Your task to perform on an android device: Clear the cart on walmart.com. Image 0: 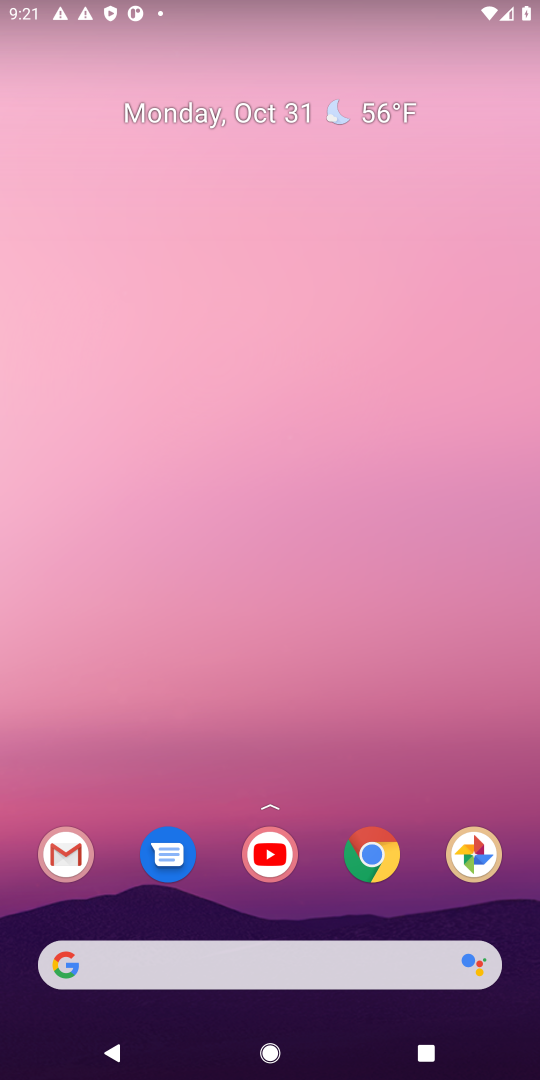
Step 0: click (275, 972)
Your task to perform on an android device: Clear the cart on walmart.com. Image 1: 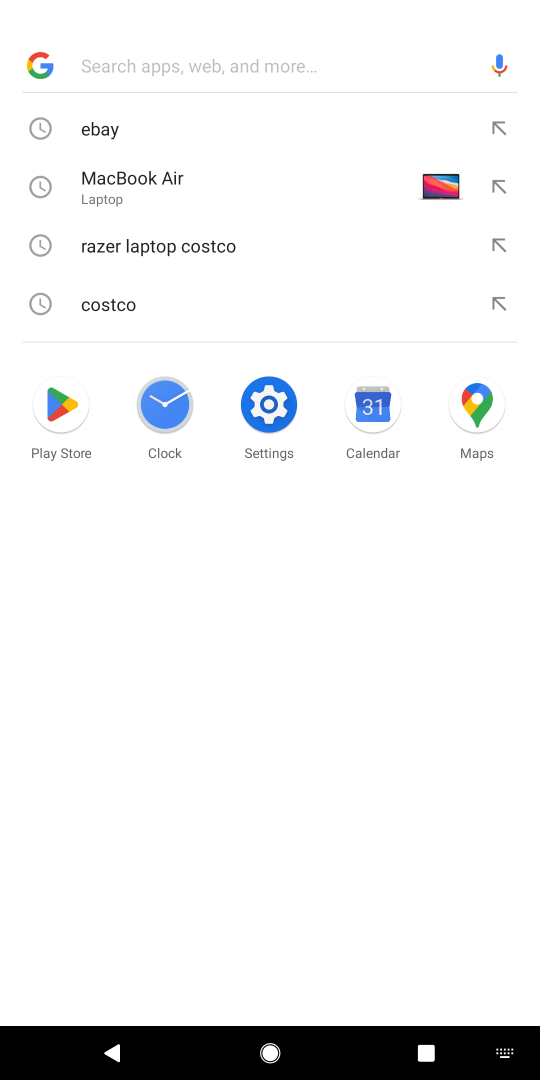
Step 1: type "walmart"
Your task to perform on an android device: Clear the cart on walmart.com. Image 2: 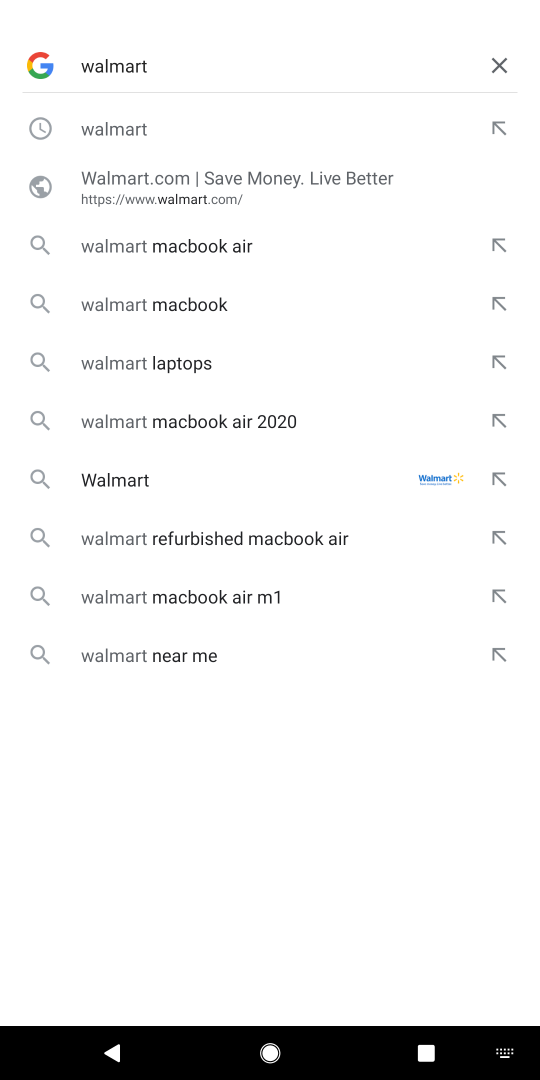
Step 2: click (282, 144)
Your task to perform on an android device: Clear the cart on walmart.com. Image 3: 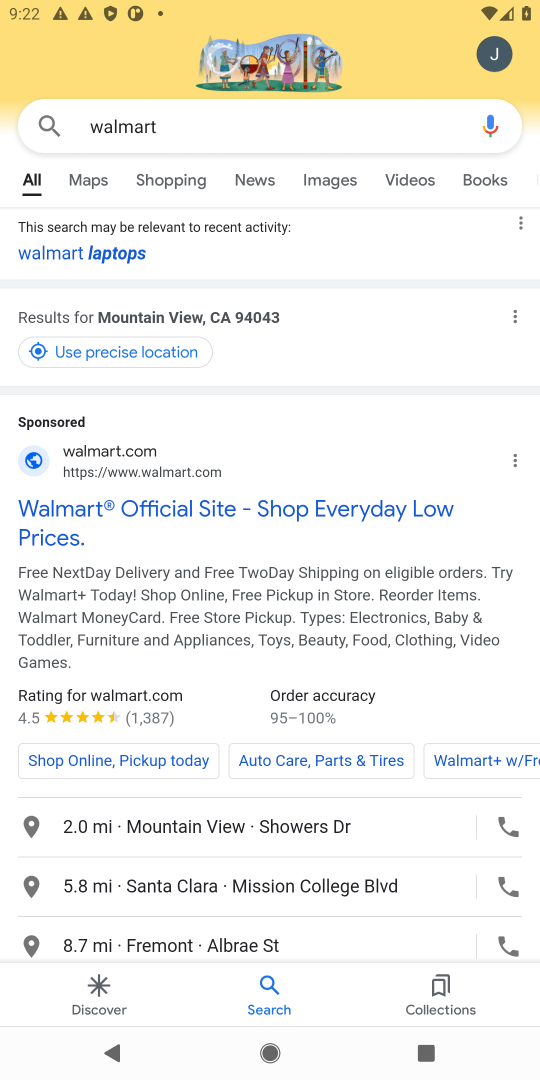
Step 3: click (115, 493)
Your task to perform on an android device: Clear the cart on walmart.com. Image 4: 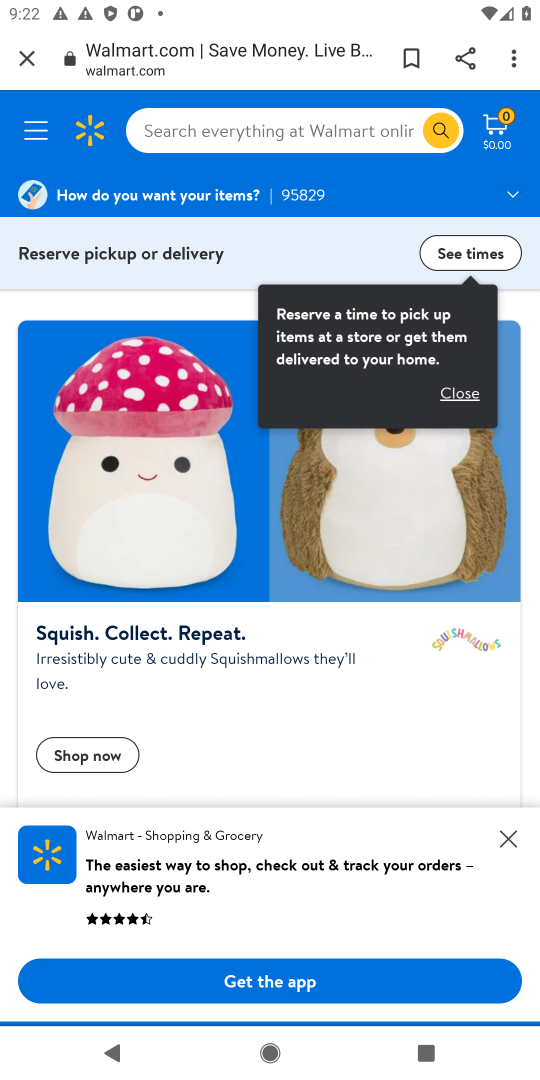
Step 4: click (499, 835)
Your task to perform on an android device: Clear the cart on walmart.com. Image 5: 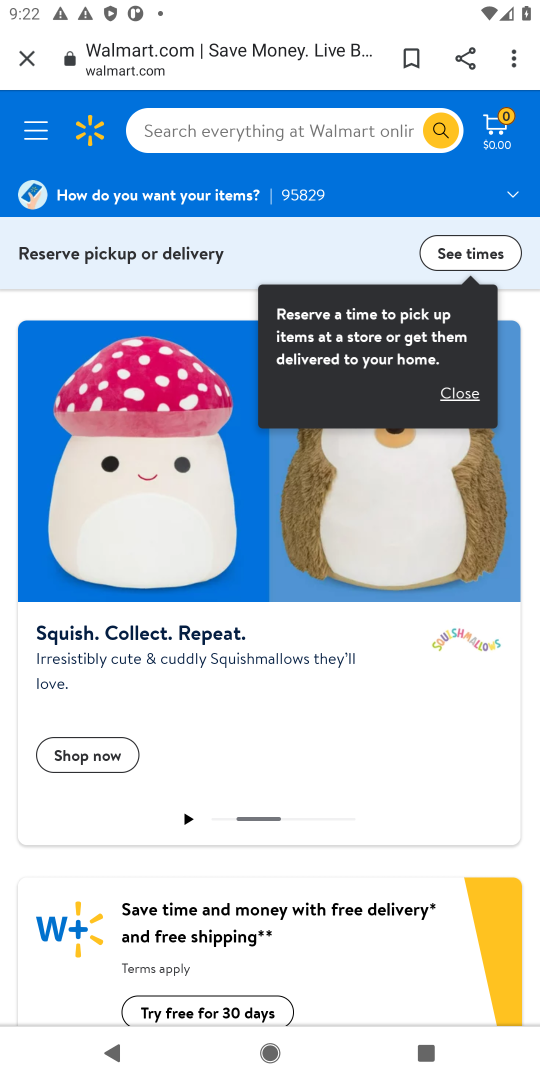
Step 5: drag from (380, 912) to (376, 371)
Your task to perform on an android device: Clear the cart on walmart.com. Image 6: 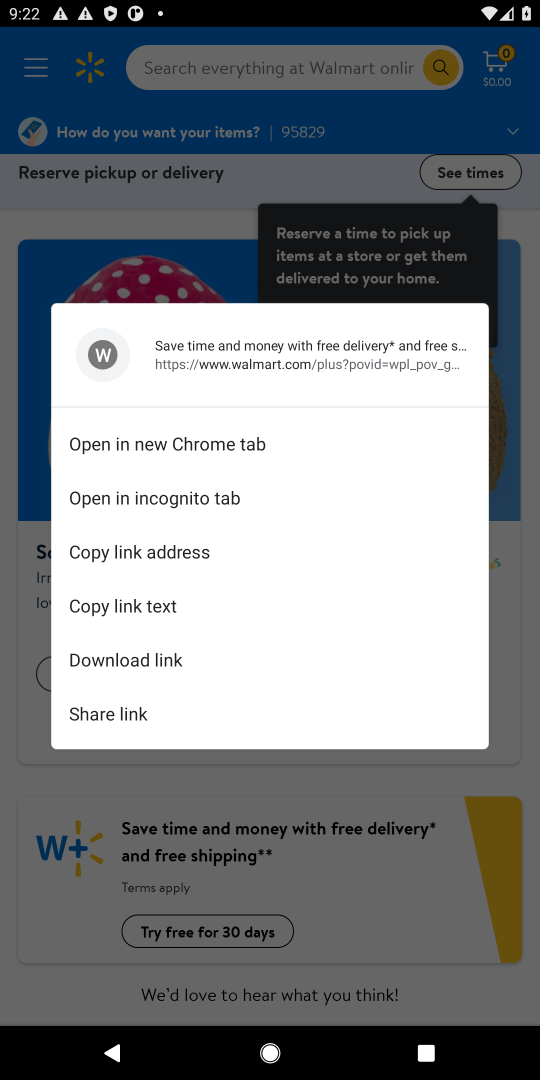
Step 6: click (315, 781)
Your task to perform on an android device: Clear the cart on walmart.com. Image 7: 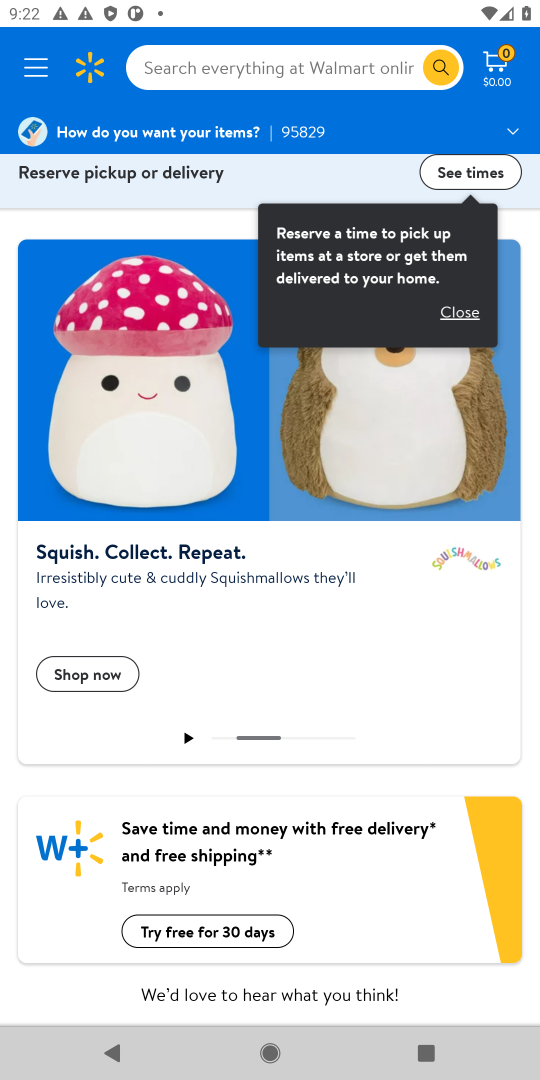
Step 7: drag from (315, 781) to (321, 435)
Your task to perform on an android device: Clear the cart on walmart.com. Image 8: 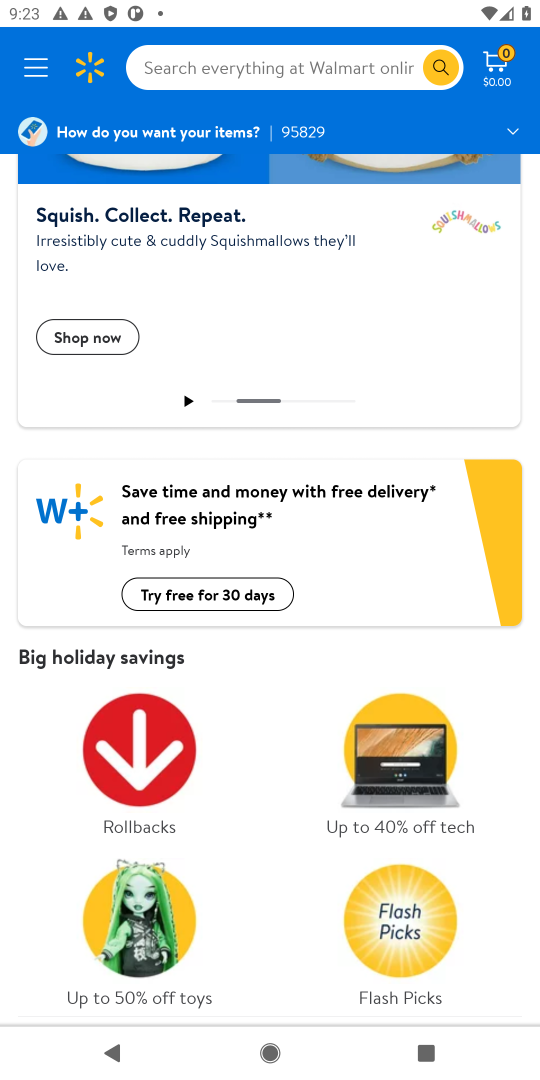
Step 8: click (503, 52)
Your task to perform on an android device: Clear the cart on walmart.com. Image 9: 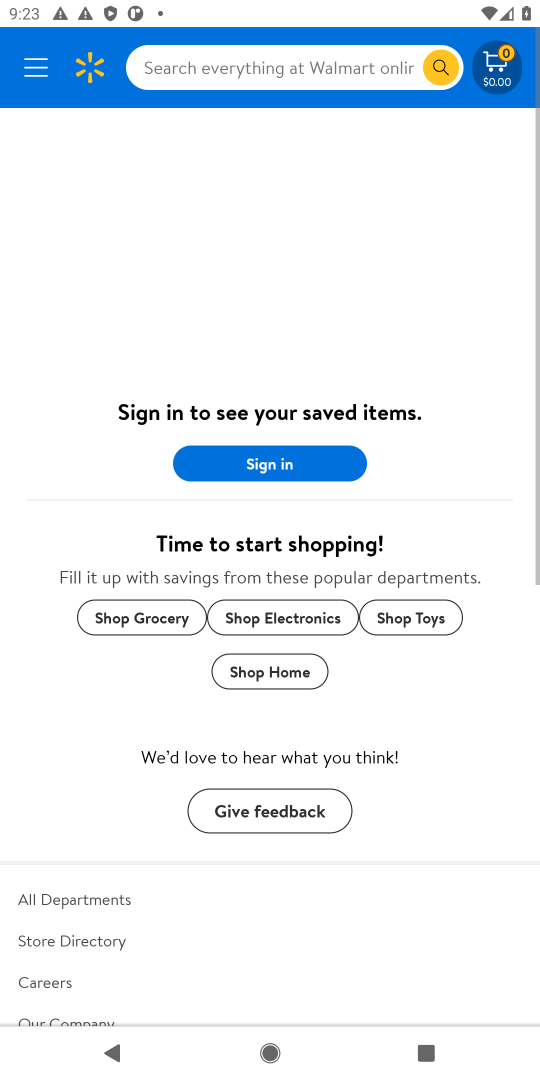
Step 9: task complete